Your task to perform on an android device: delete browsing data in the chrome app Image 0: 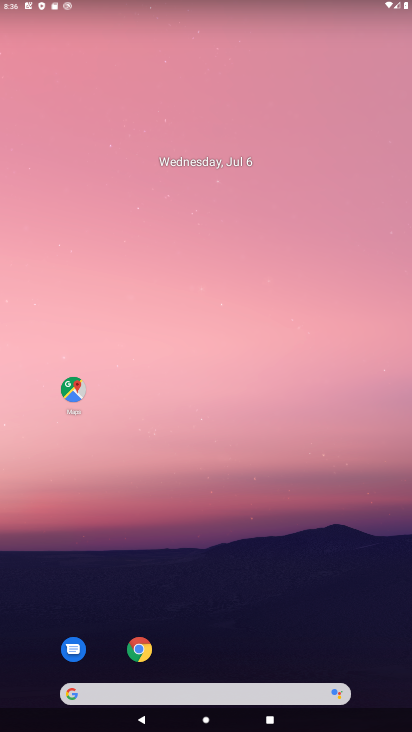
Step 0: drag from (219, 657) to (320, 56)
Your task to perform on an android device: delete browsing data in the chrome app Image 1: 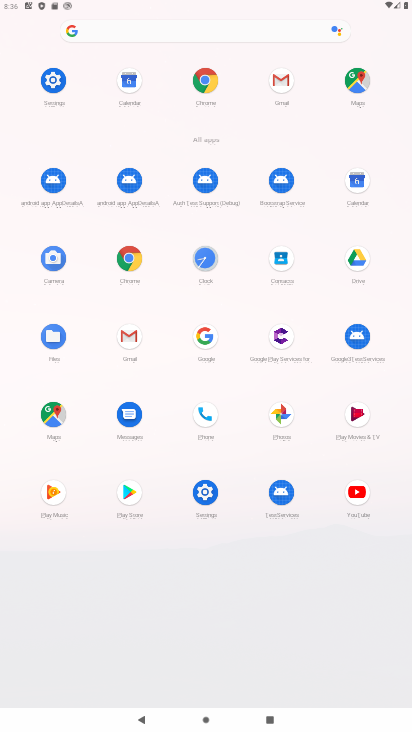
Step 1: click (138, 261)
Your task to perform on an android device: delete browsing data in the chrome app Image 2: 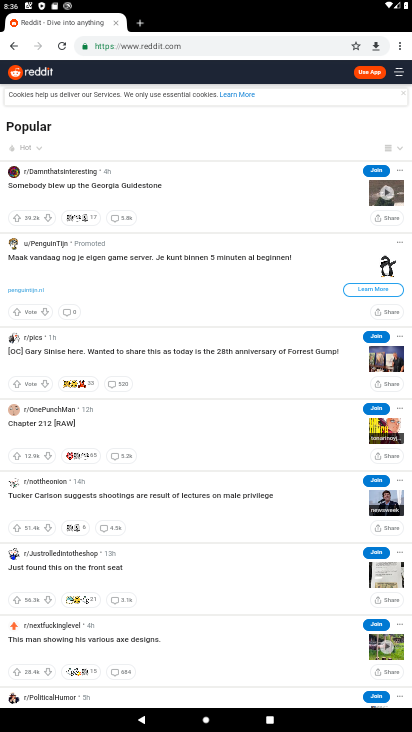
Step 2: click (399, 48)
Your task to perform on an android device: delete browsing data in the chrome app Image 3: 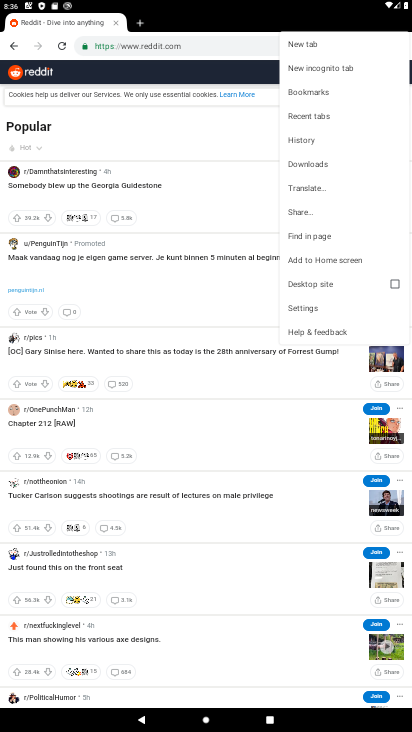
Step 3: click (314, 138)
Your task to perform on an android device: delete browsing data in the chrome app Image 4: 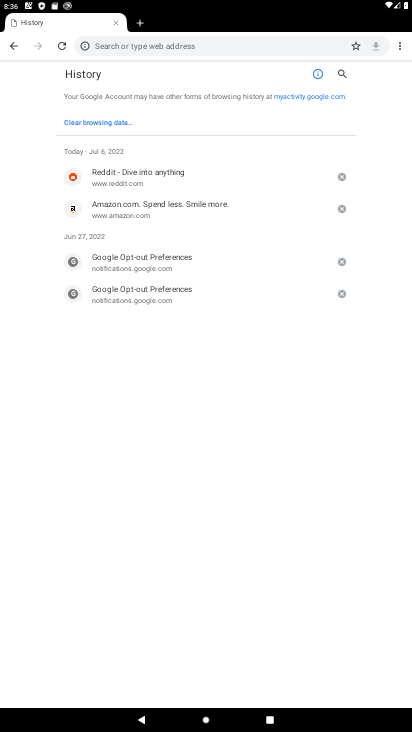
Step 4: click (121, 121)
Your task to perform on an android device: delete browsing data in the chrome app Image 5: 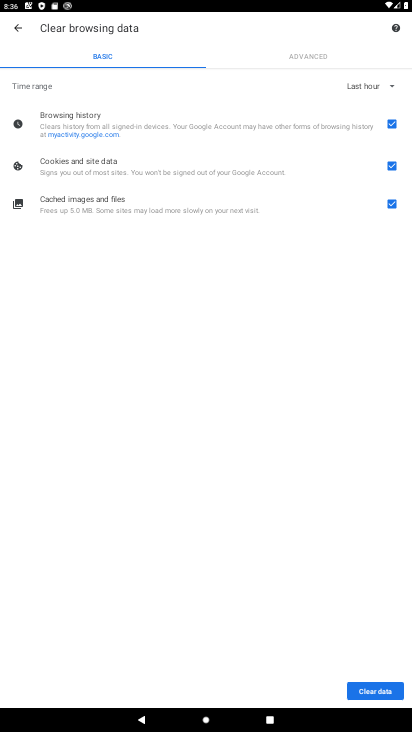
Step 5: click (391, 694)
Your task to perform on an android device: delete browsing data in the chrome app Image 6: 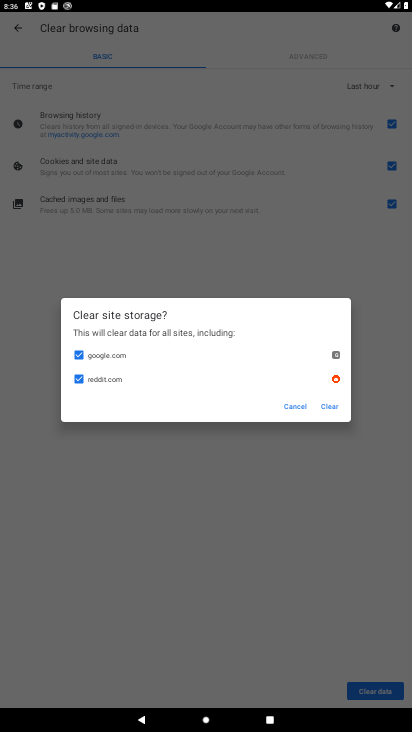
Step 6: click (337, 407)
Your task to perform on an android device: delete browsing data in the chrome app Image 7: 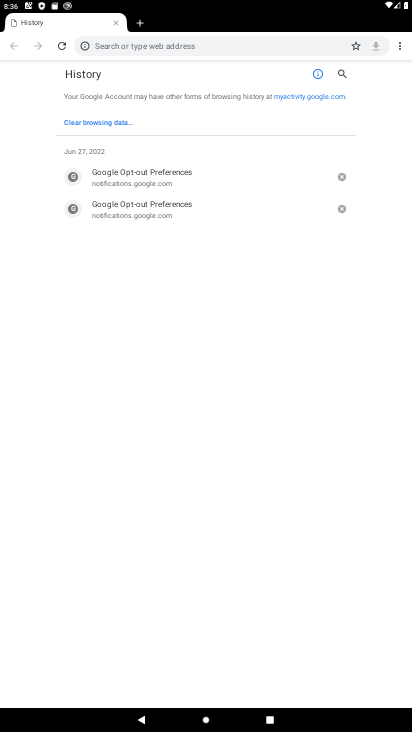
Step 7: task complete